Your task to perform on an android device: Go to notification settings Image 0: 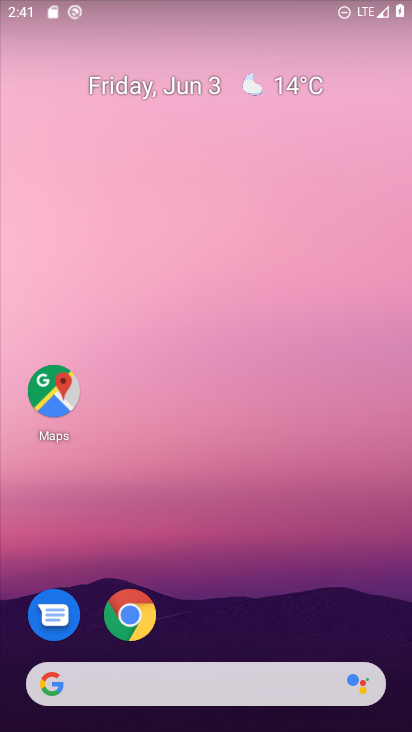
Step 0: drag from (204, 618) to (289, 71)
Your task to perform on an android device: Go to notification settings Image 1: 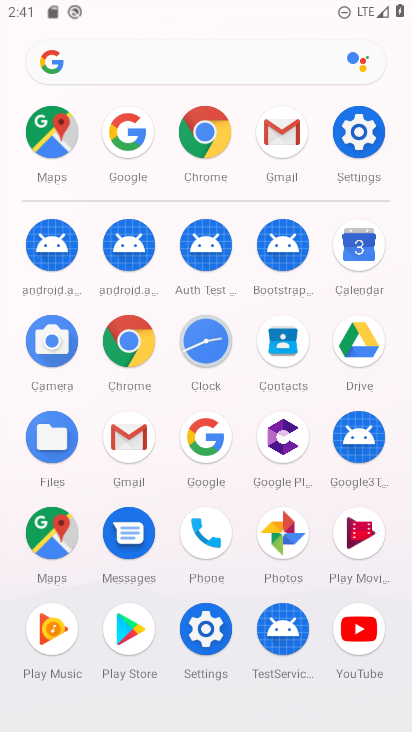
Step 1: click (349, 127)
Your task to perform on an android device: Go to notification settings Image 2: 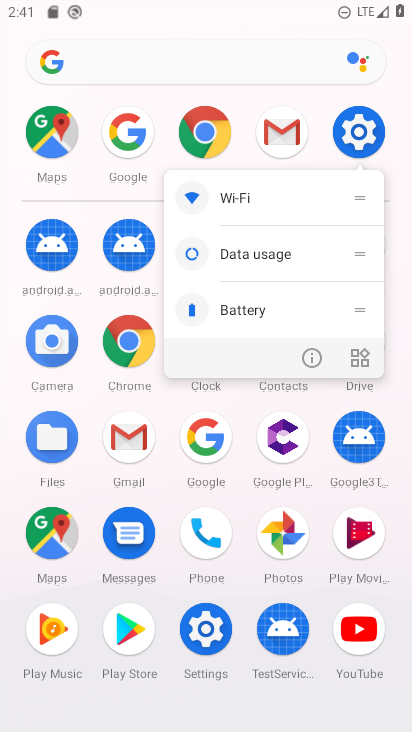
Step 2: click (309, 356)
Your task to perform on an android device: Go to notification settings Image 3: 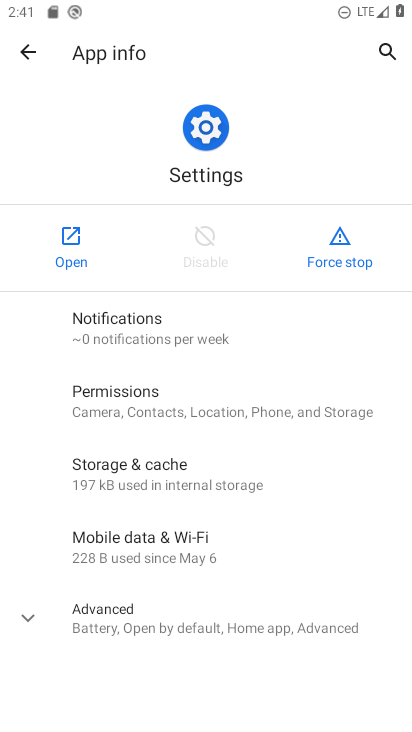
Step 3: click (83, 232)
Your task to perform on an android device: Go to notification settings Image 4: 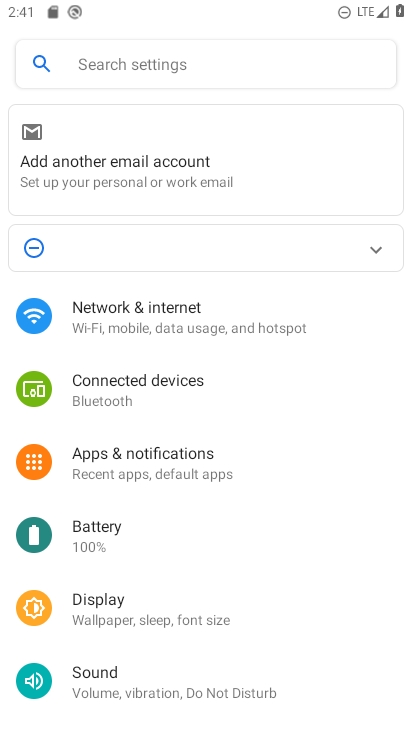
Step 4: click (158, 451)
Your task to perform on an android device: Go to notification settings Image 5: 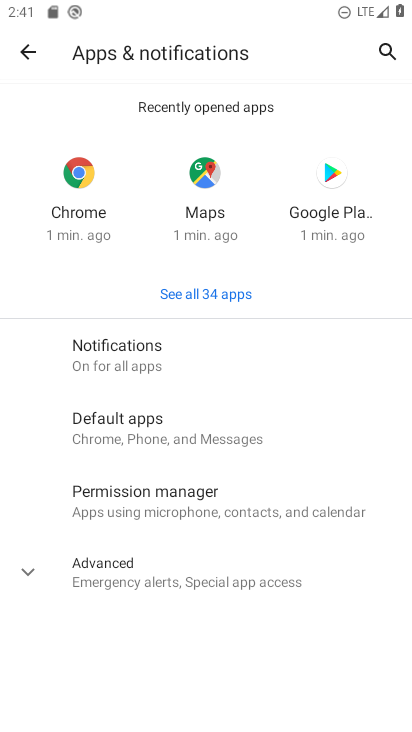
Step 5: drag from (182, 531) to (211, 214)
Your task to perform on an android device: Go to notification settings Image 6: 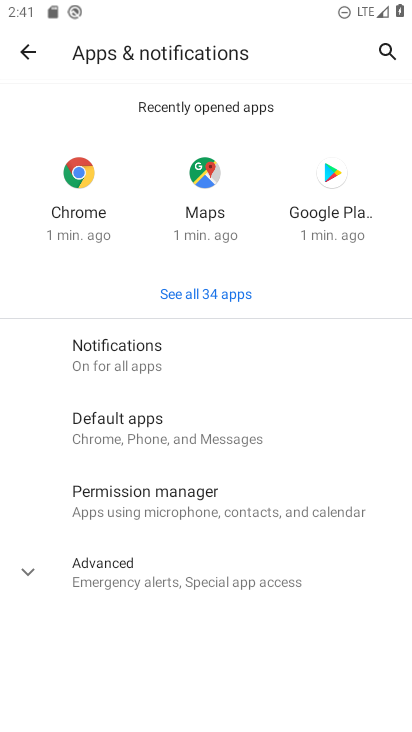
Step 6: click (176, 356)
Your task to perform on an android device: Go to notification settings Image 7: 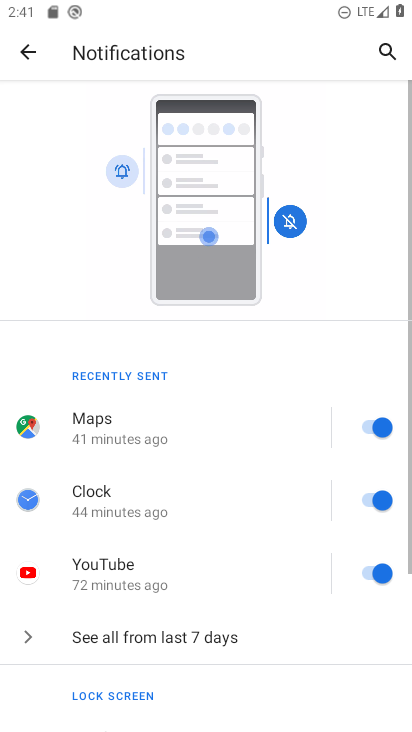
Step 7: drag from (212, 540) to (298, 200)
Your task to perform on an android device: Go to notification settings Image 8: 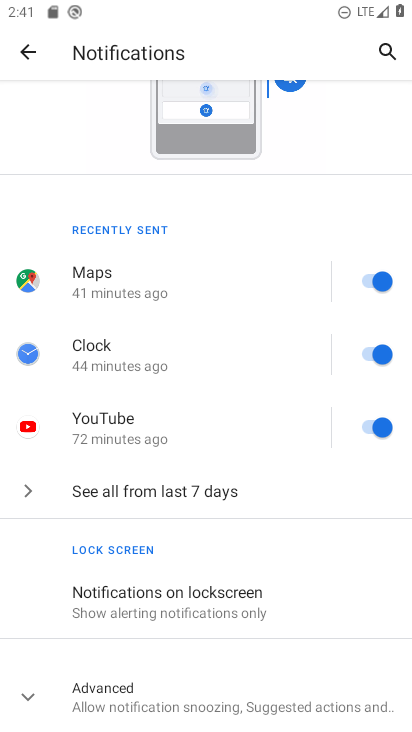
Step 8: drag from (213, 547) to (264, 162)
Your task to perform on an android device: Go to notification settings Image 9: 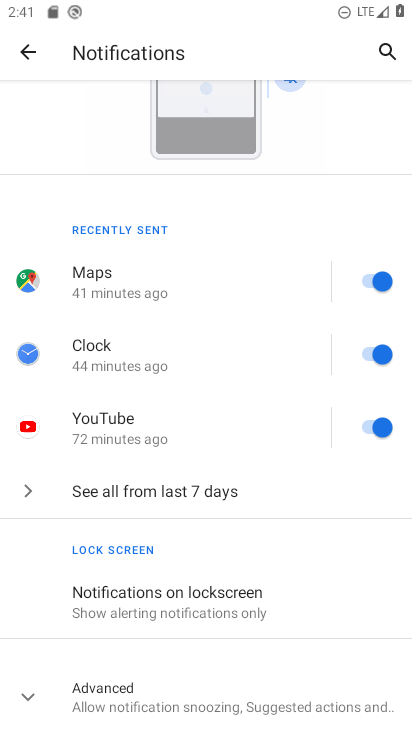
Step 9: click (139, 682)
Your task to perform on an android device: Go to notification settings Image 10: 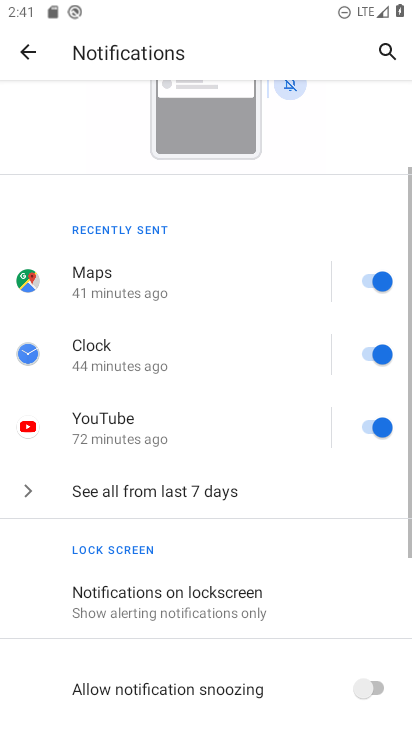
Step 10: task complete